Your task to perform on an android device: Open Wikipedia Image 0: 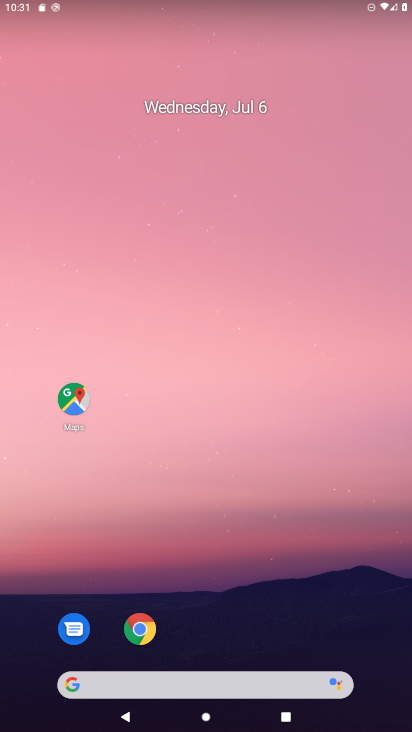
Step 0: click (411, 551)
Your task to perform on an android device: Open Wikipedia Image 1: 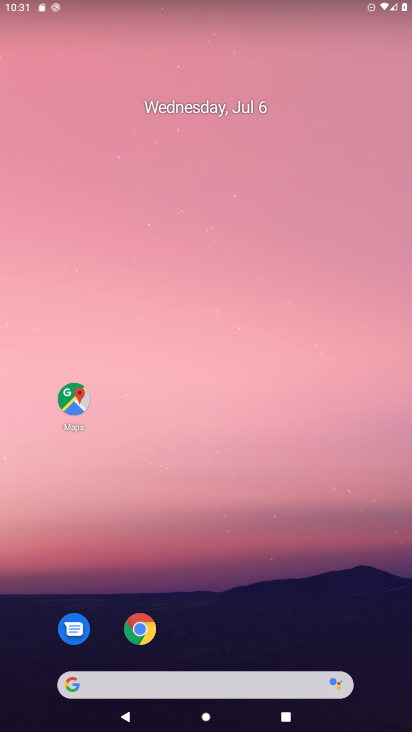
Step 1: click (138, 640)
Your task to perform on an android device: Open Wikipedia Image 2: 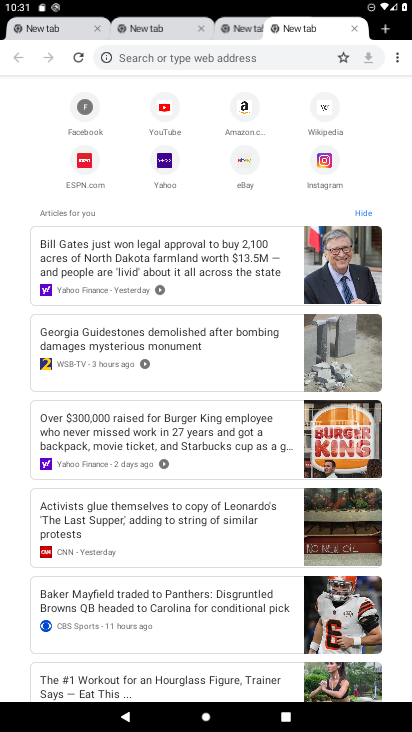
Step 2: click (330, 107)
Your task to perform on an android device: Open Wikipedia Image 3: 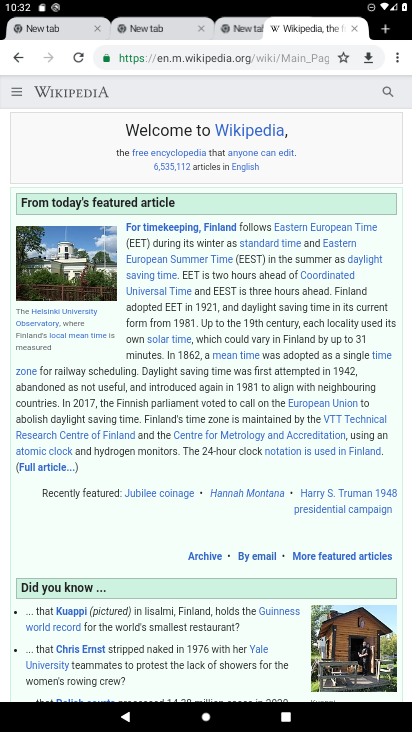
Step 3: task complete